Your task to perform on an android device: open wifi settings Image 0: 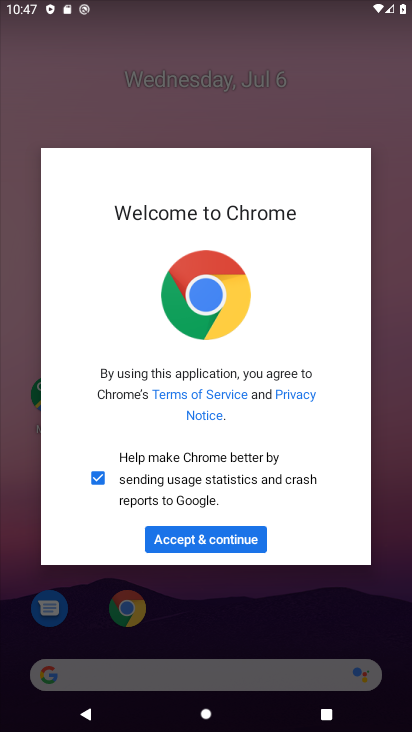
Step 0: press home button
Your task to perform on an android device: open wifi settings Image 1: 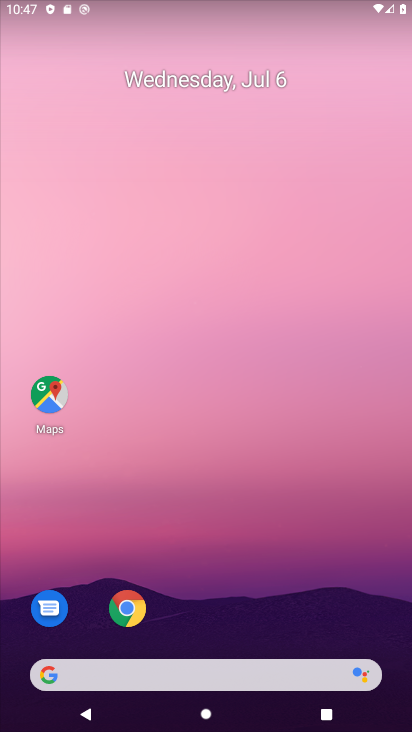
Step 1: drag from (201, 632) to (114, 62)
Your task to perform on an android device: open wifi settings Image 2: 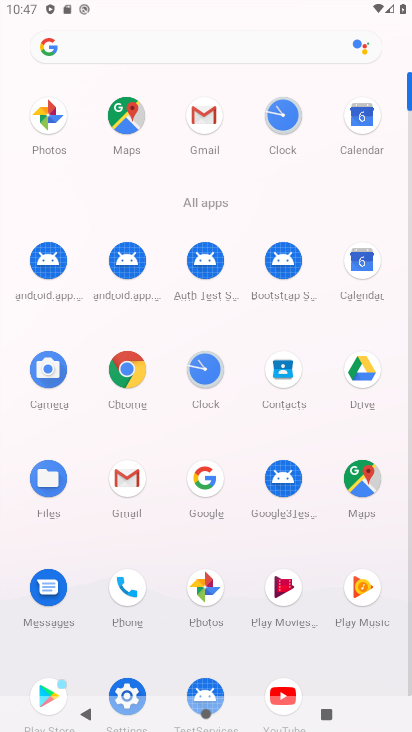
Step 2: click (129, 681)
Your task to perform on an android device: open wifi settings Image 3: 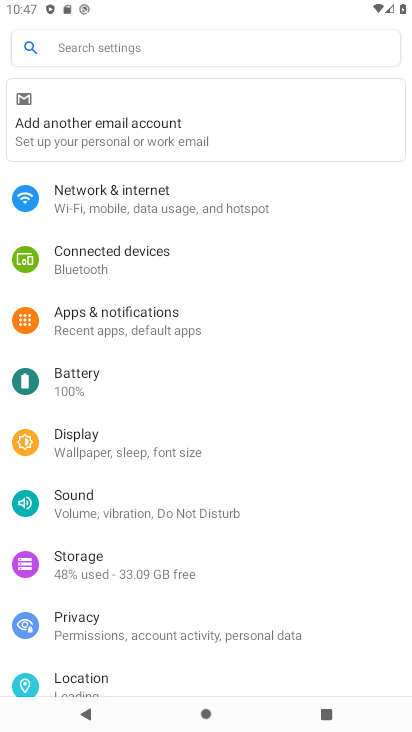
Step 3: click (149, 195)
Your task to perform on an android device: open wifi settings Image 4: 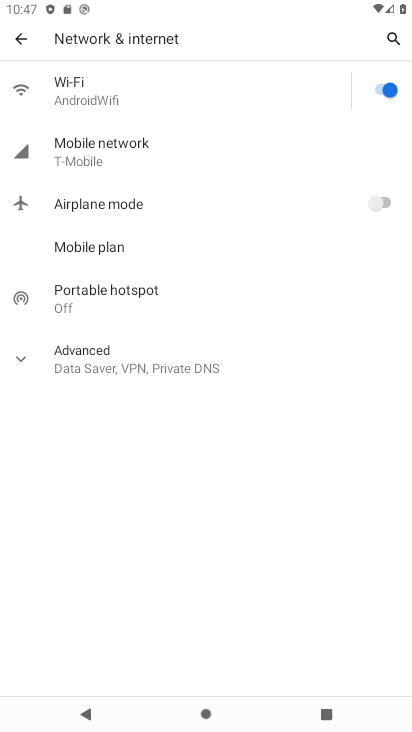
Step 4: click (121, 168)
Your task to perform on an android device: open wifi settings Image 5: 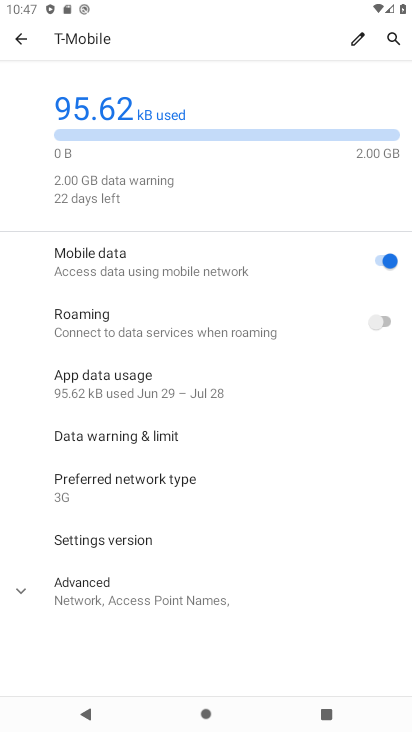
Step 5: click (22, 47)
Your task to perform on an android device: open wifi settings Image 6: 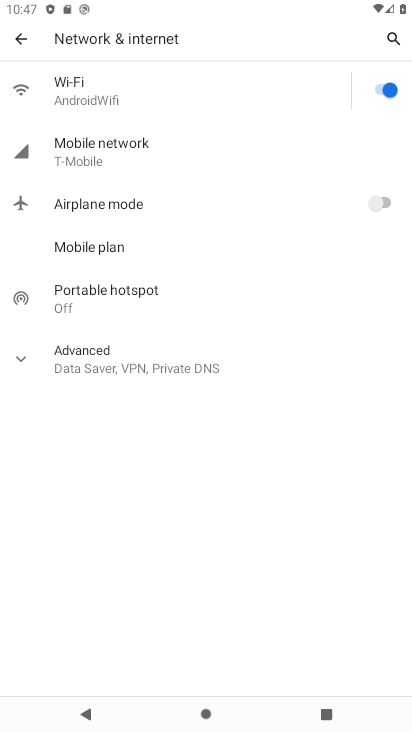
Step 6: click (89, 101)
Your task to perform on an android device: open wifi settings Image 7: 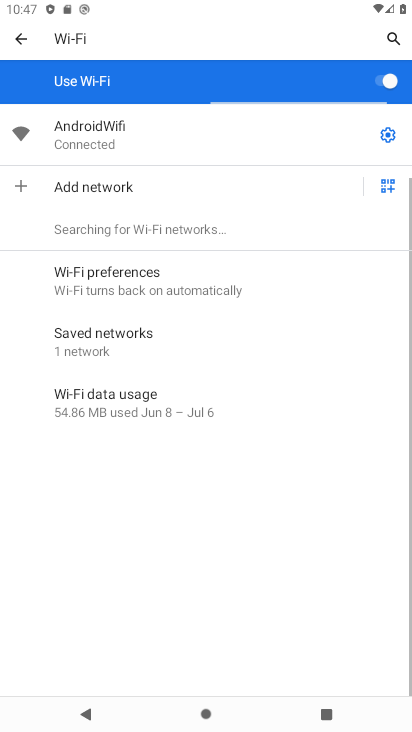
Step 7: task complete